Your task to perform on an android device: remove spam from my inbox in the gmail app Image 0: 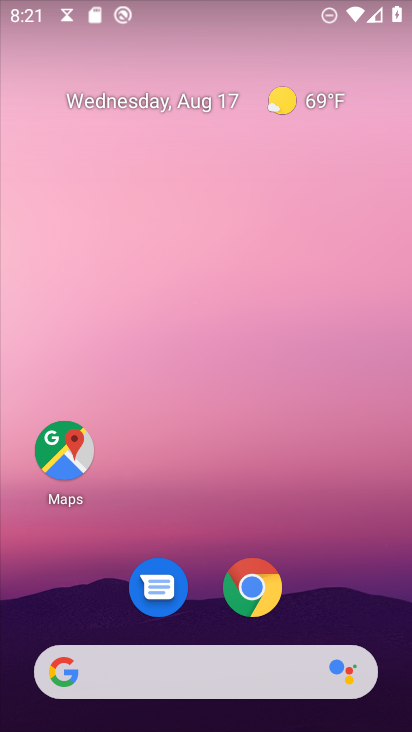
Step 0: drag from (3, 706) to (188, 368)
Your task to perform on an android device: remove spam from my inbox in the gmail app Image 1: 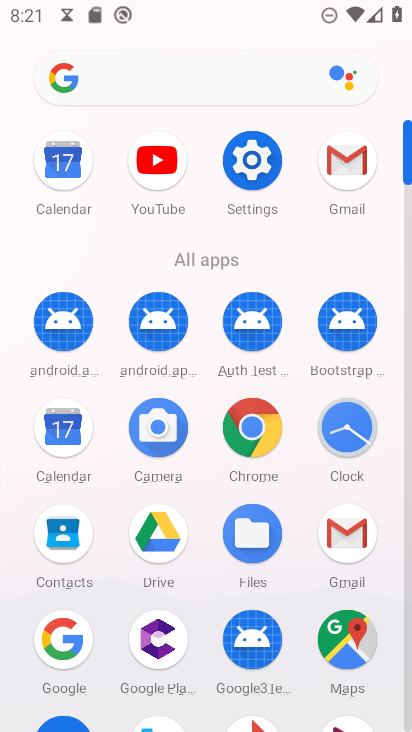
Step 1: click (348, 177)
Your task to perform on an android device: remove spam from my inbox in the gmail app Image 2: 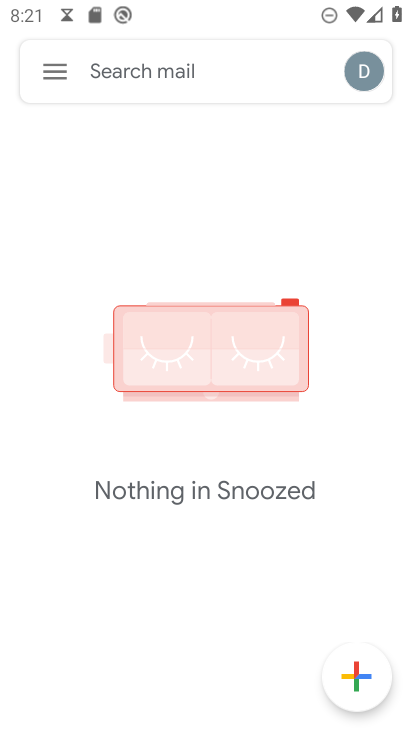
Step 2: click (36, 66)
Your task to perform on an android device: remove spam from my inbox in the gmail app Image 3: 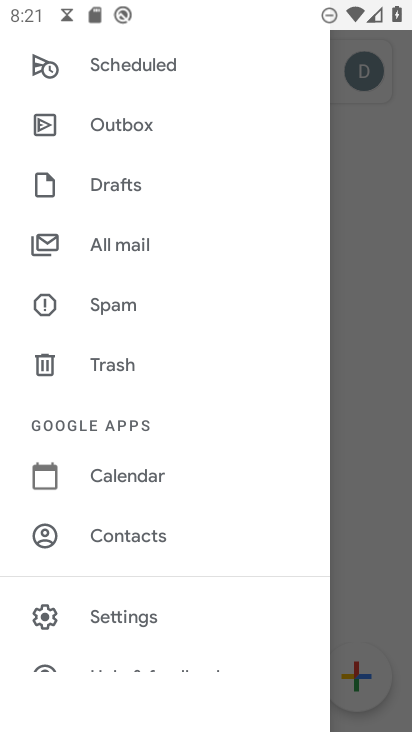
Step 3: click (87, 290)
Your task to perform on an android device: remove spam from my inbox in the gmail app Image 4: 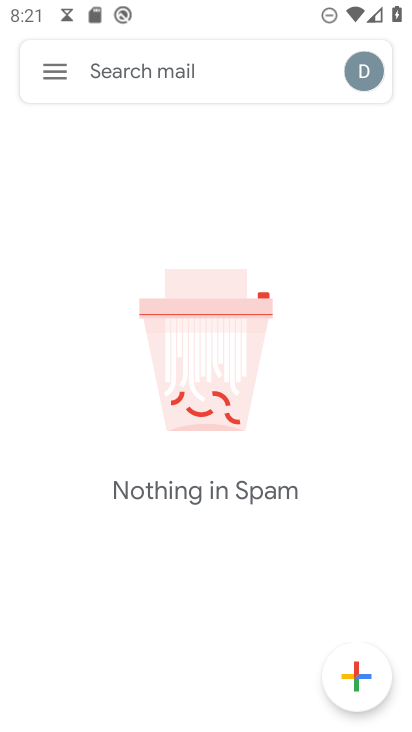
Step 4: task complete